Your task to perform on an android device: turn off notifications in google photos Image 0: 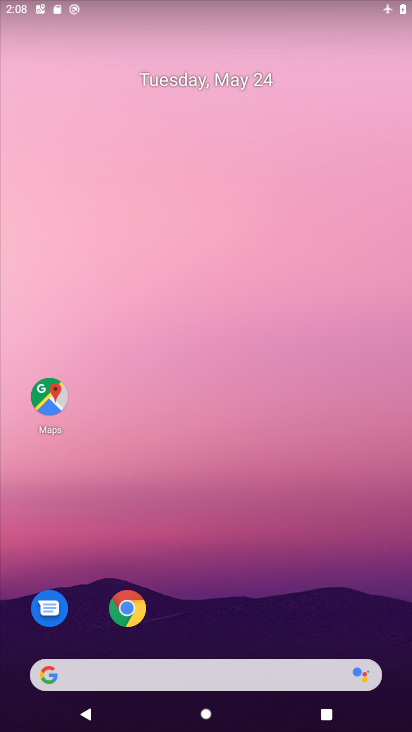
Step 0: drag from (274, 577) to (281, 138)
Your task to perform on an android device: turn off notifications in google photos Image 1: 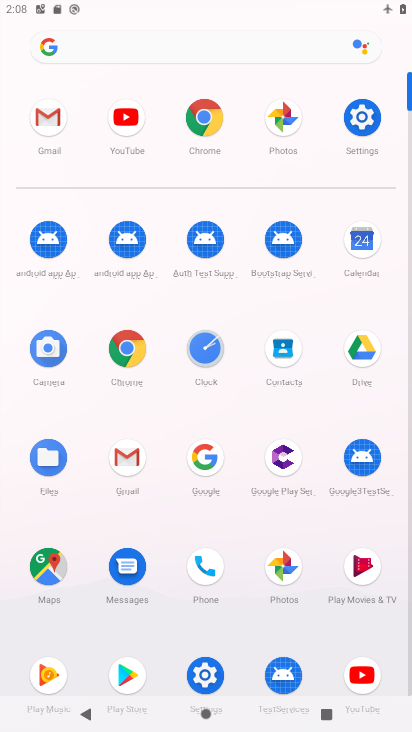
Step 1: click (279, 143)
Your task to perform on an android device: turn off notifications in google photos Image 2: 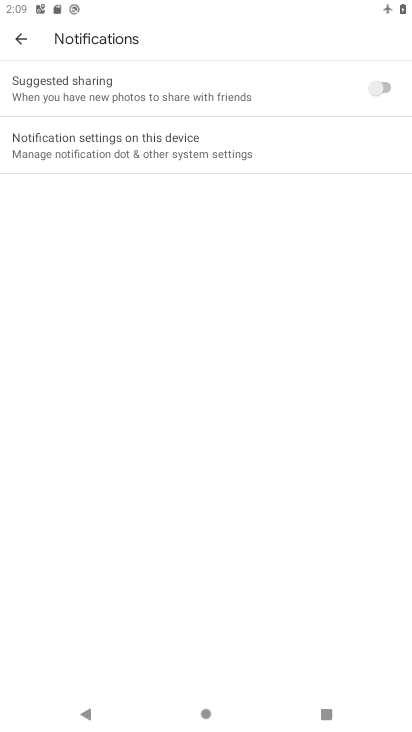
Step 2: click (203, 71)
Your task to perform on an android device: turn off notifications in google photos Image 3: 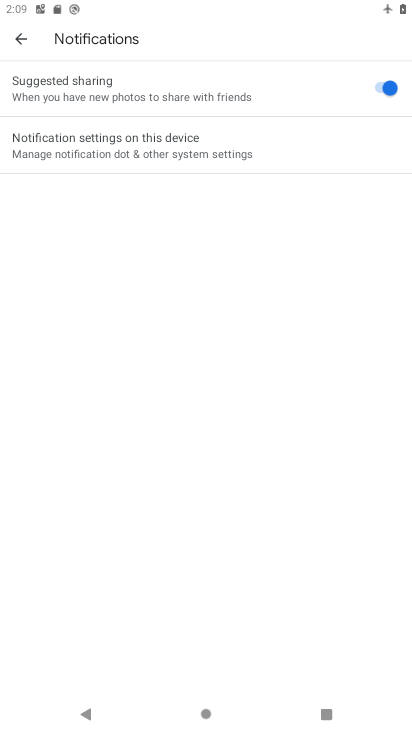
Step 3: task complete